Your task to perform on an android device: open sync settings in chrome Image 0: 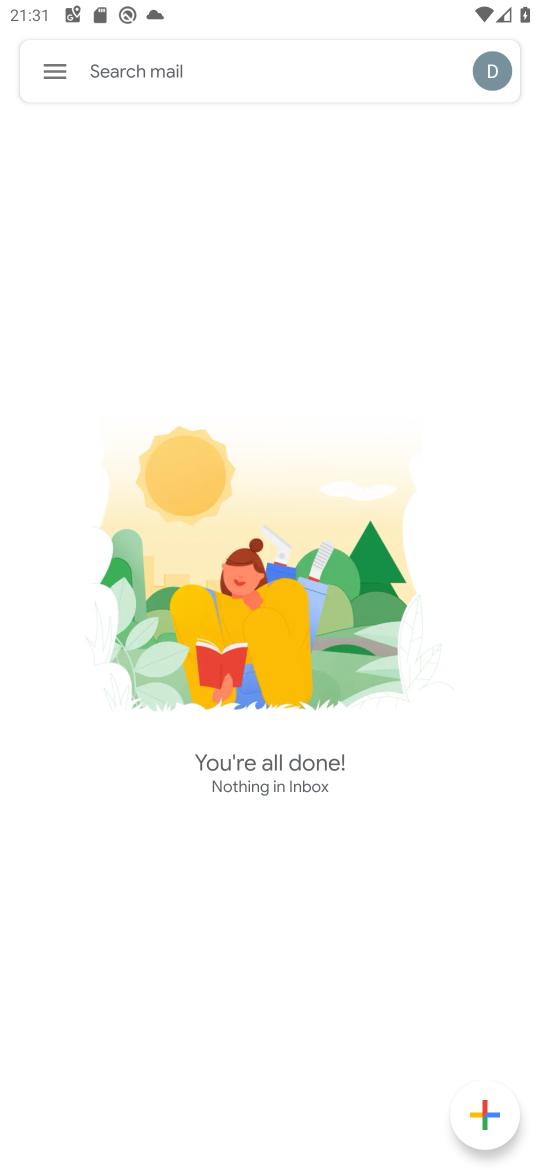
Step 0: press back button
Your task to perform on an android device: open sync settings in chrome Image 1: 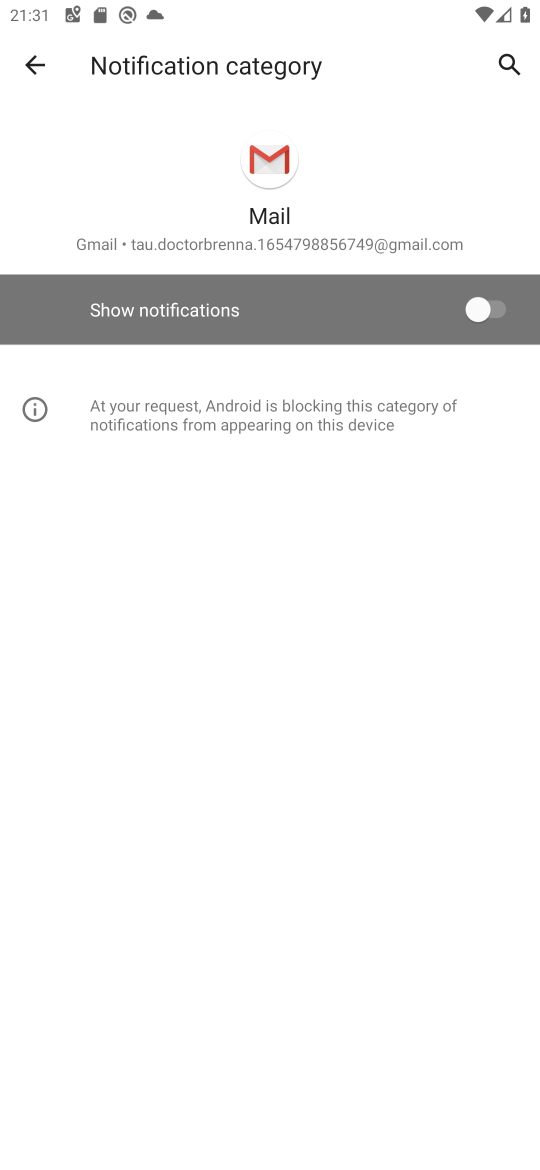
Step 1: press home button
Your task to perform on an android device: open sync settings in chrome Image 2: 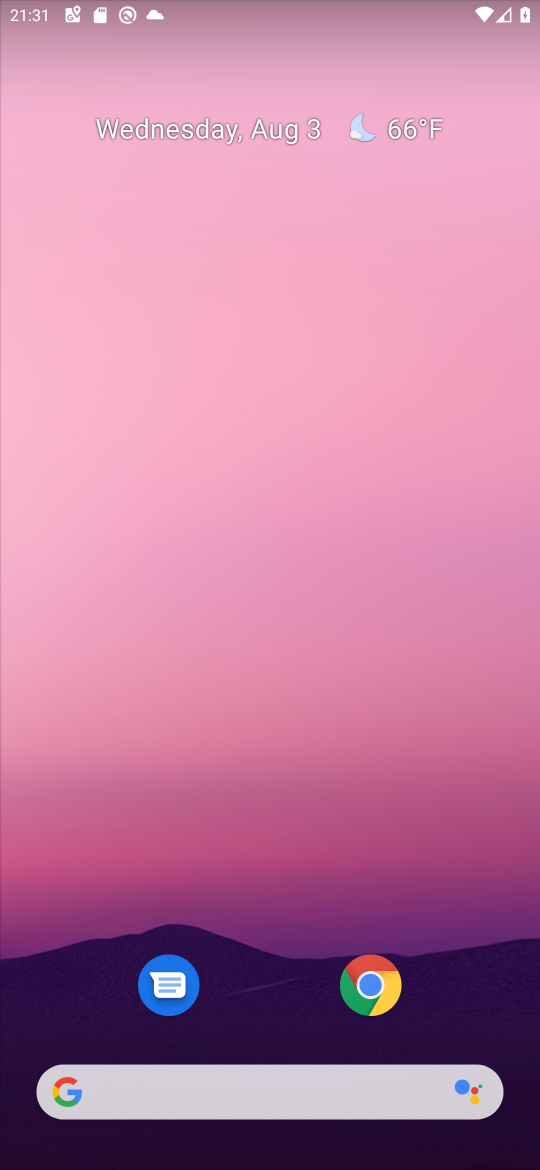
Step 2: click (356, 963)
Your task to perform on an android device: open sync settings in chrome Image 3: 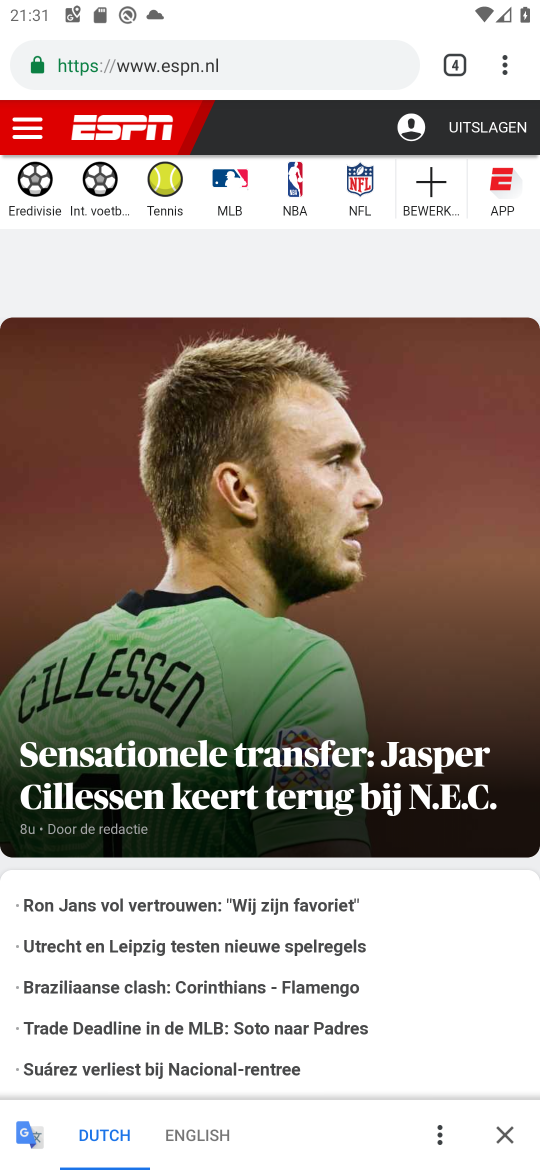
Step 3: click (497, 68)
Your task to perform on an android device: open sync settings in chrome Image 4: 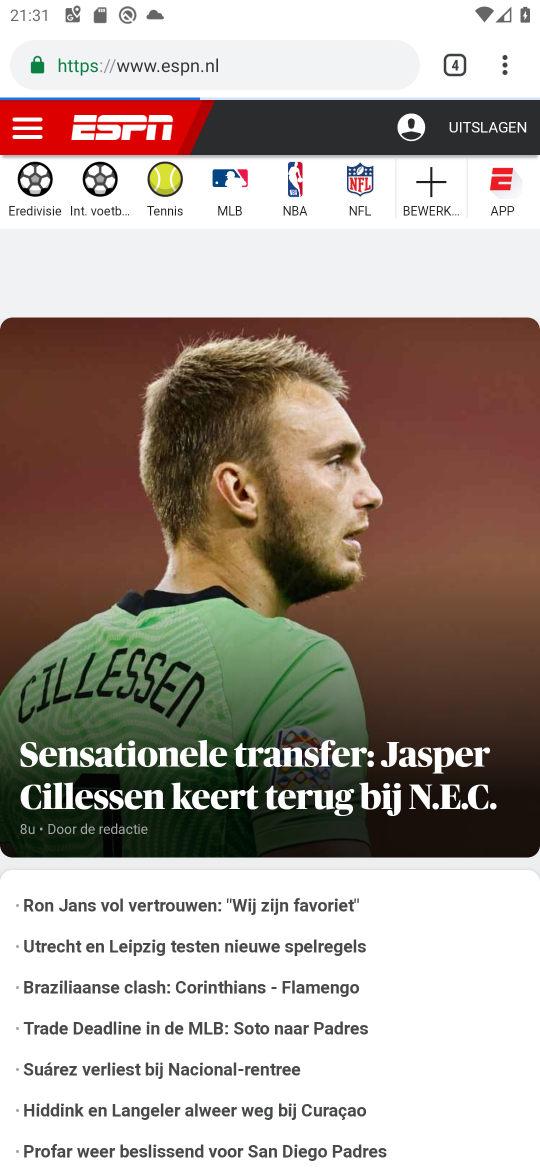
Step 4: click (505, 68)
Your task to perform on an android device: open sync settings in chrome Image 5: 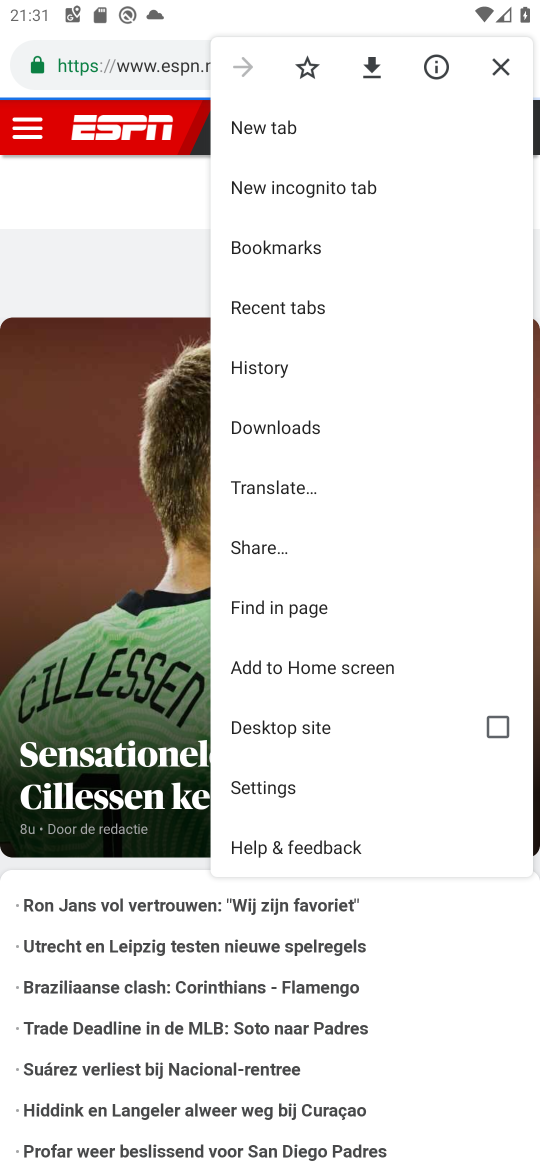
Step 5: click (270, 797)
Your task to perform on an android device: open sync settings in chrome Image 6: 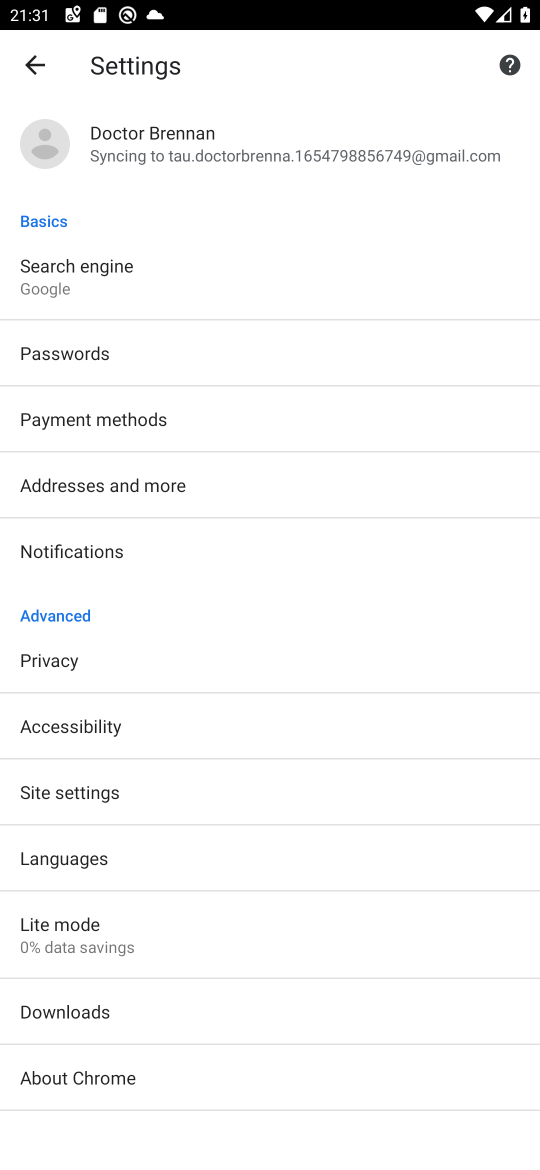
Step 6: drag from (209, 1008) to (230, 598)
Your task to perform on an android device: open sync settings in chrome Image 7: 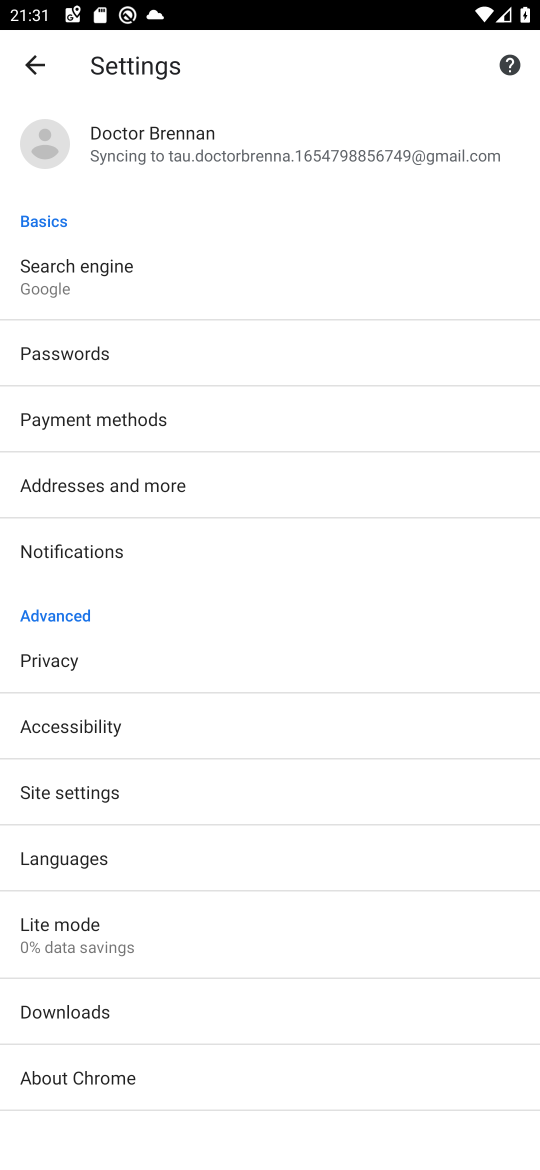
Step 7: click (189, 151)
Your task to perform on an android device: open sync settings in chrome Image 8: 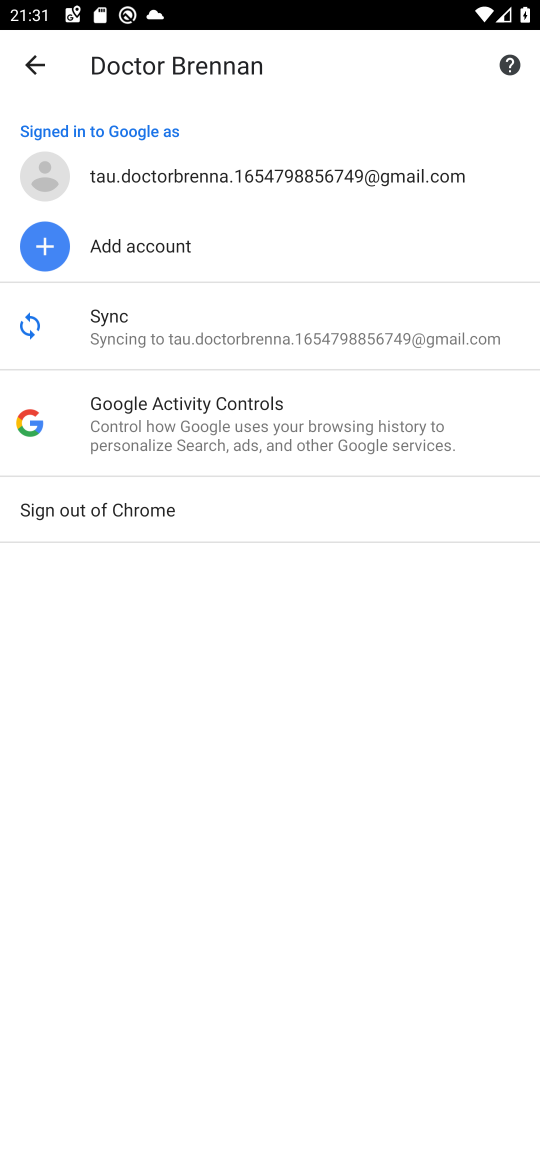
Step 8: click (149, 318)
Your task to perform on an android device: open sync settings in chrome Image 9: 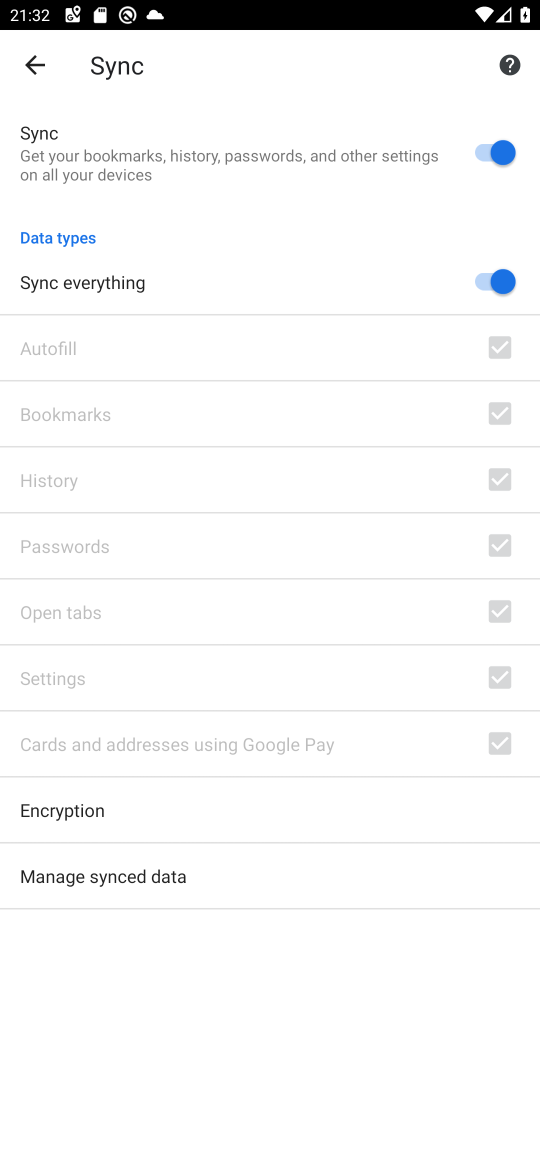
Step 9: task complete